Your task to perform on an android device: open chrome privacy settings Image 0: 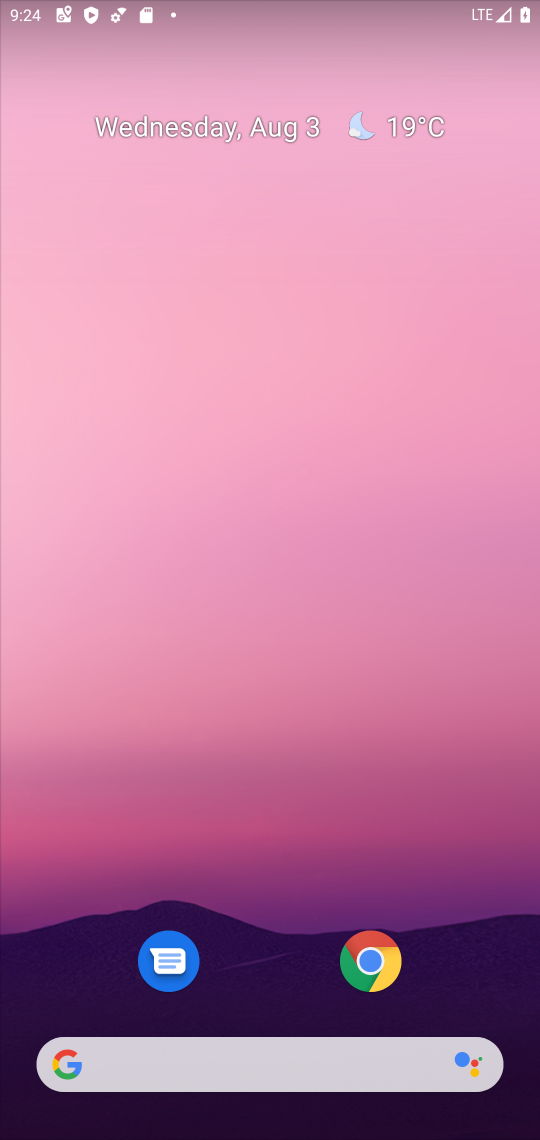
Step 0: drag from (331, 1031) to (119, 64)
Your task to perform on an android device: open chrome privacy settings Image 1: 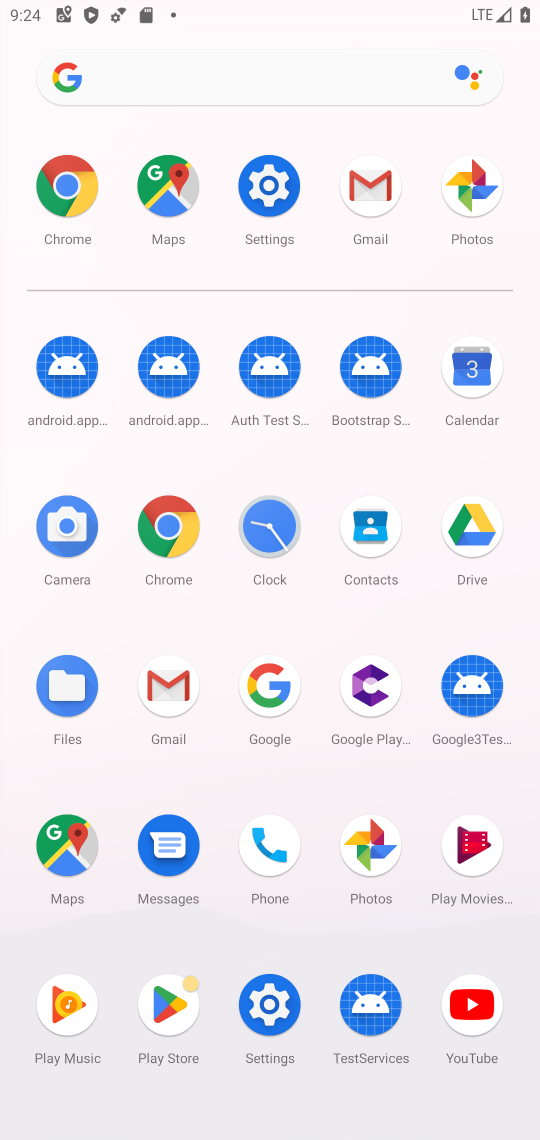
Step 1: click (172, 540)
Your task to perform on an android device: open chrome privacy settings Image 2: 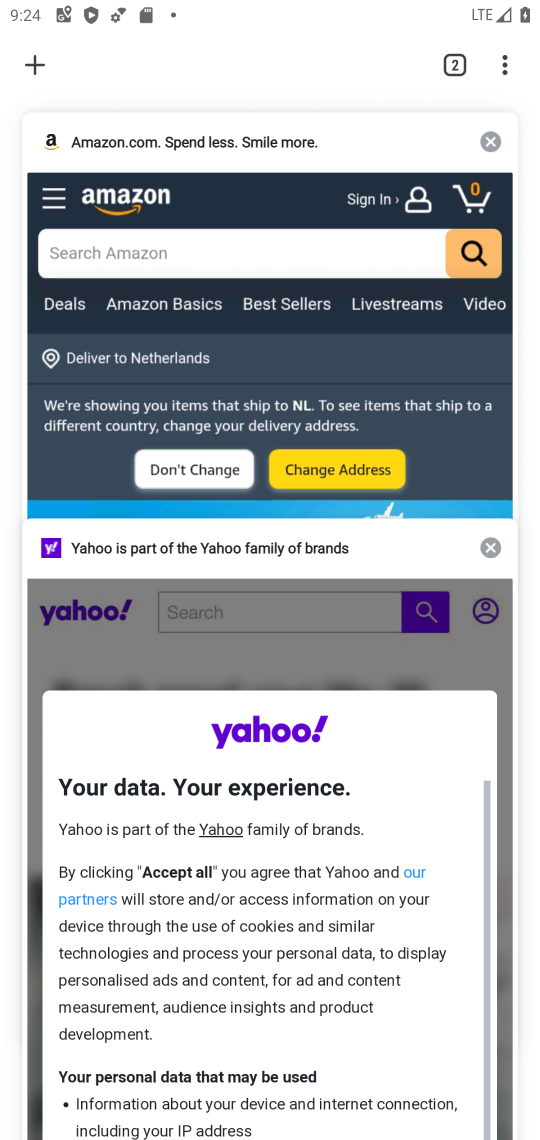
Step 2: click (347, 616)
Your task to perform on an android device: open chrome privacy settings Image 3: 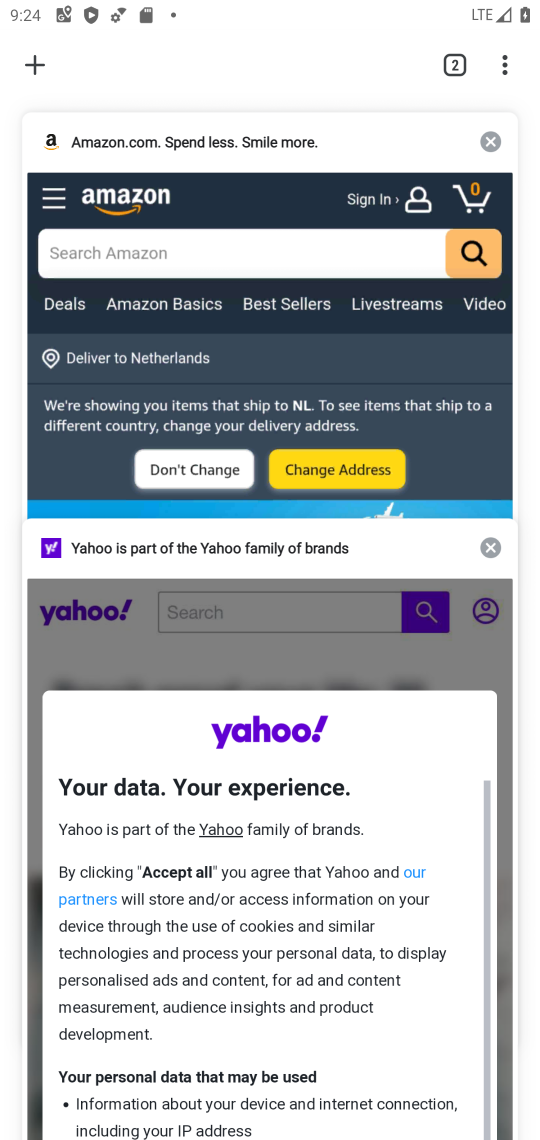
Step 3: click (399, 599)
Your task to perform on an android device: open chrome privacy settings Image 4: 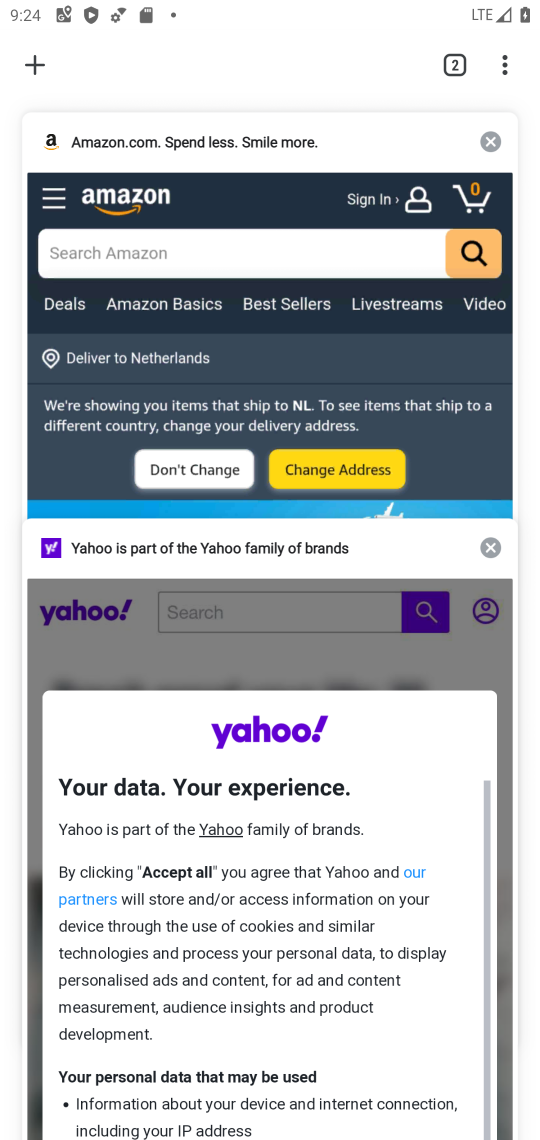
Step 4: click (310, 746)
Your task to perform on an android device: open chrome privacy settings Image 5: 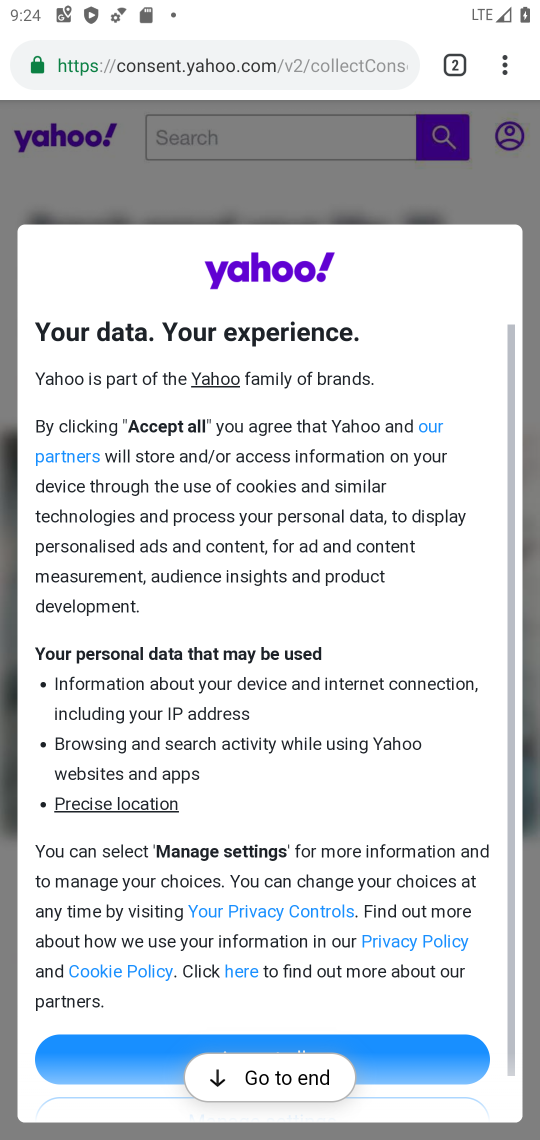
Step 5: click (496, 75)
Your task to perform on an android device: open chrome privacy settings Image 6: 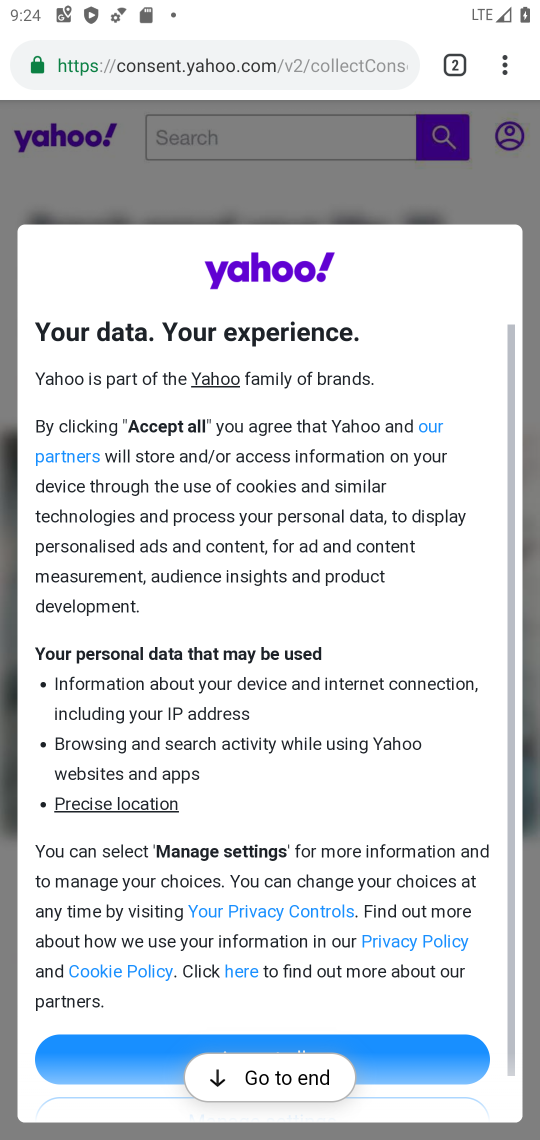
Step 6: drag from (498, 75) to (247, 775)
Your task to perform on an android device: open chrome privacy settings Image 7: 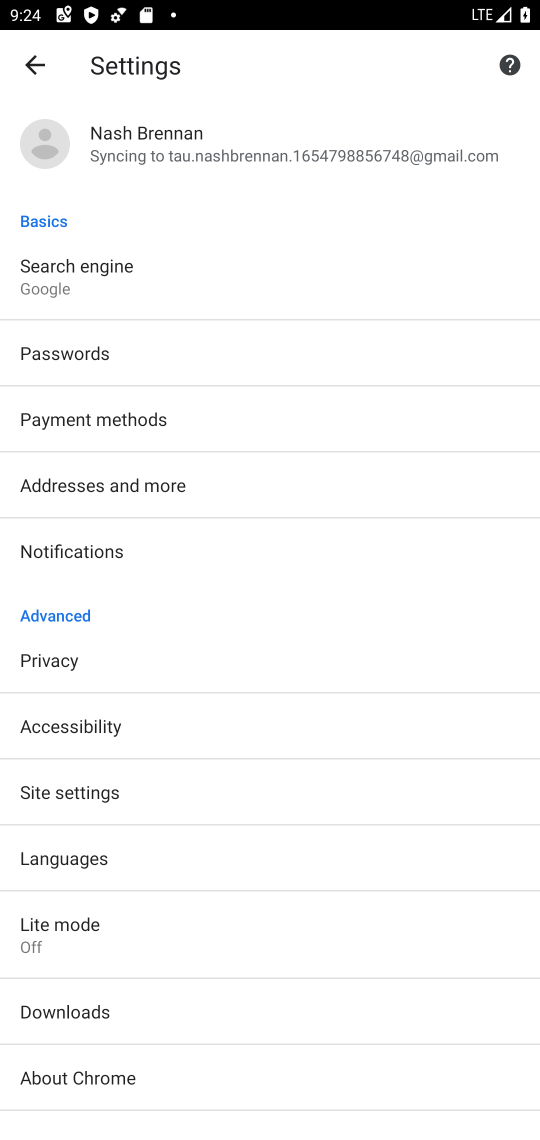
Step 7: click (66, 644)
Your task to perform on an android device: open chrome privacy settings Image 8: 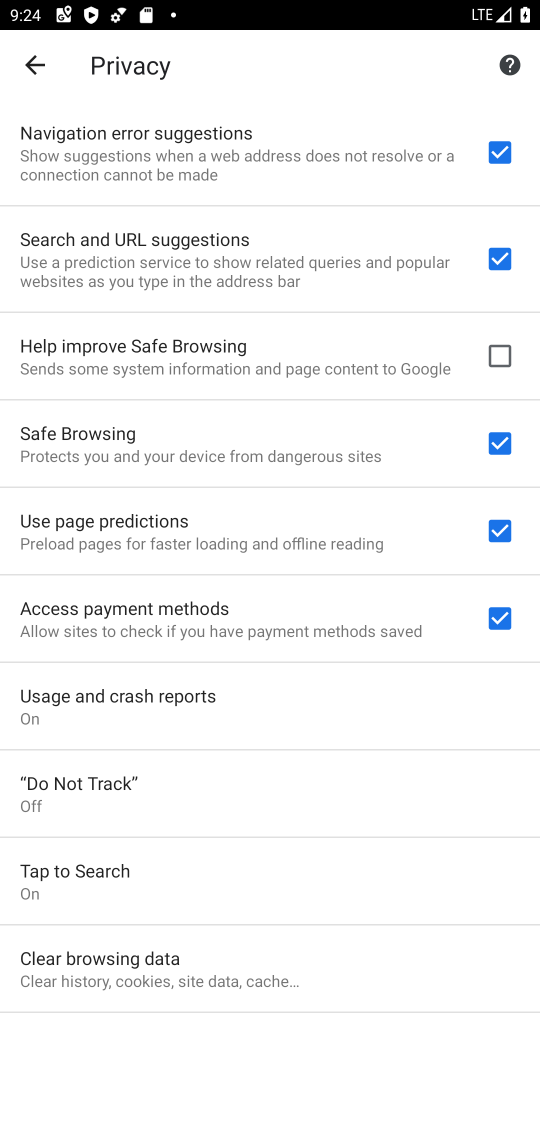
Step 8: task complete